Your task to perform on an android device: What's on my calendar tomorrow? Image 0: 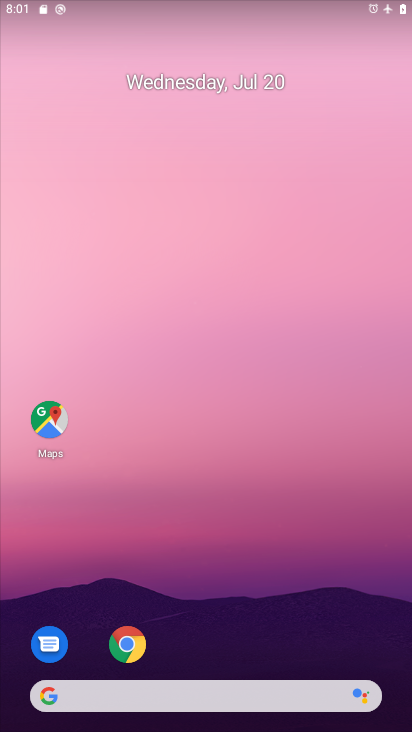
Step 0: drag from (181, 676) to (230, 370)
Your task to perform on an android device: What's on my calendar tomorrow? Image 1: 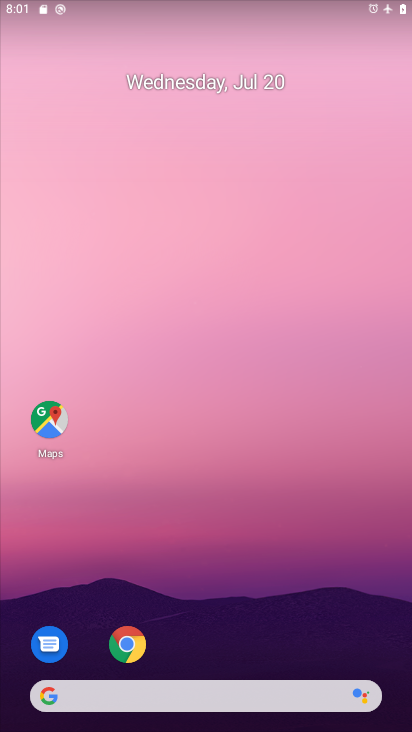
Step 1: drag from (205, 680) to (259, 220)
Your task to perform on an android device: What's on my calendar tomorrow? Image 2: 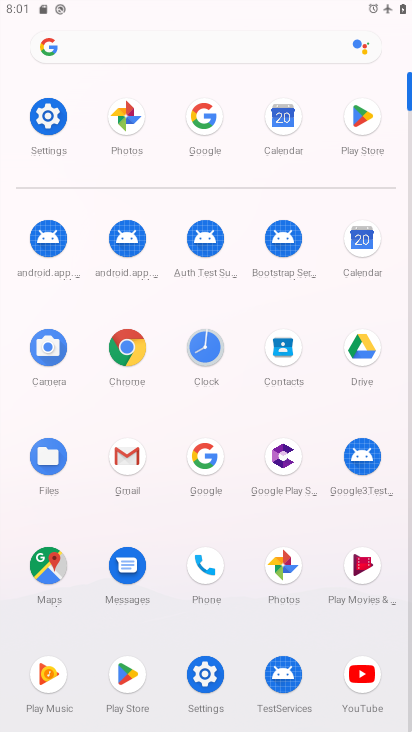
Step 2: click (355, 225)
Your task to perform on an android device: What's on my calendar tomorrow? Image 3: 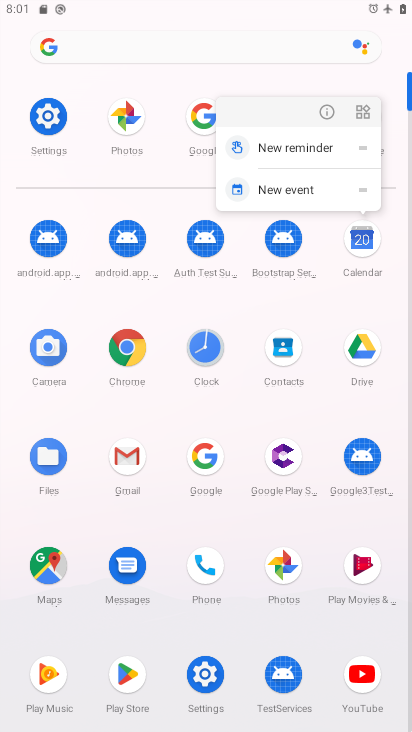
Step 3: click (367, 253)
Your task to perform on an android device: What's on my calendar tomorrow? Image 4: 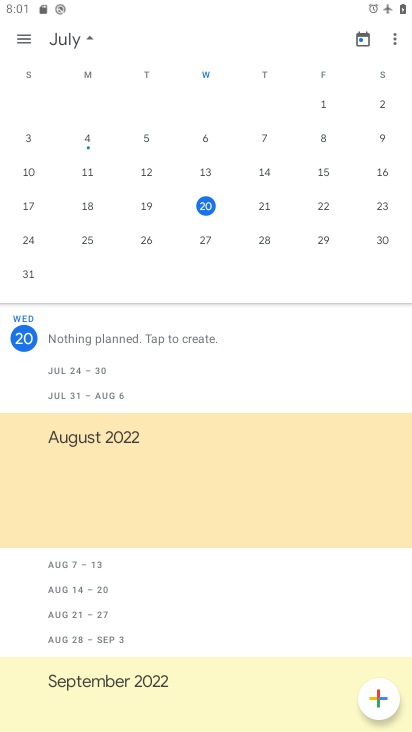
Step 4: click (264, 208)
Your task to perform on an android device: What's on my calendar tomorrow? Image 5: 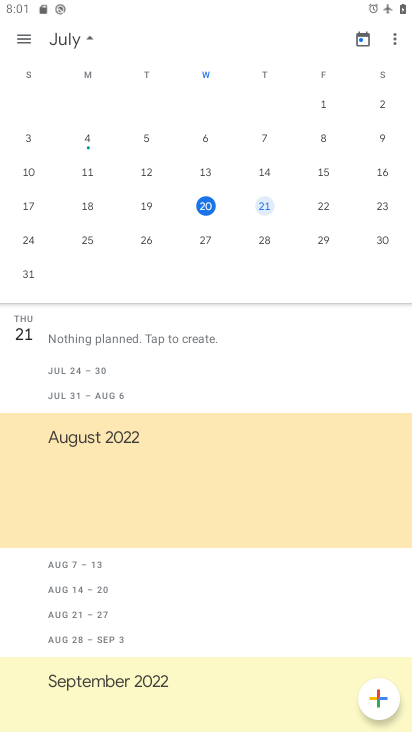
Step 5: task complete